Your task to perform on an android device: turn on sleep mode Image 0: 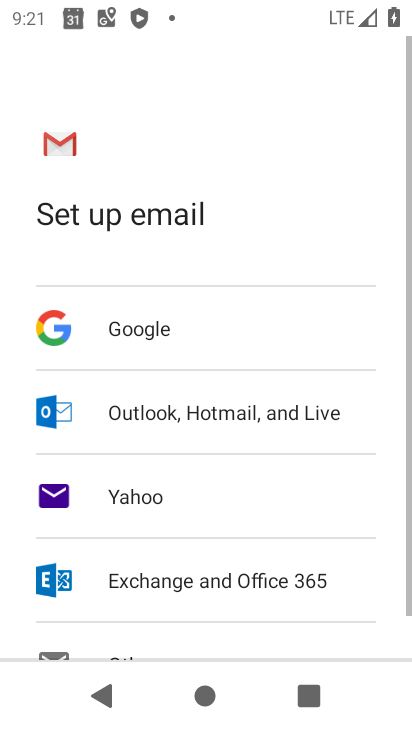
Step 0: press home button
Your task to perform on an android device: turn on sleep mode Image 1: 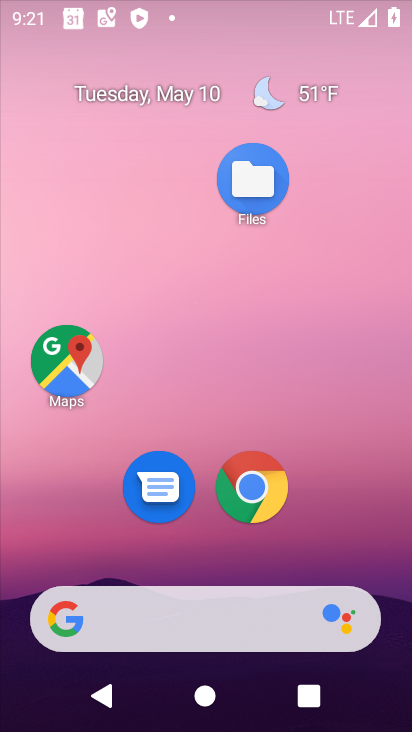
Step 1: drag from (217, 542) to (233, 132)
Your task to perform on an android device: turn on sleep mode Image 2: 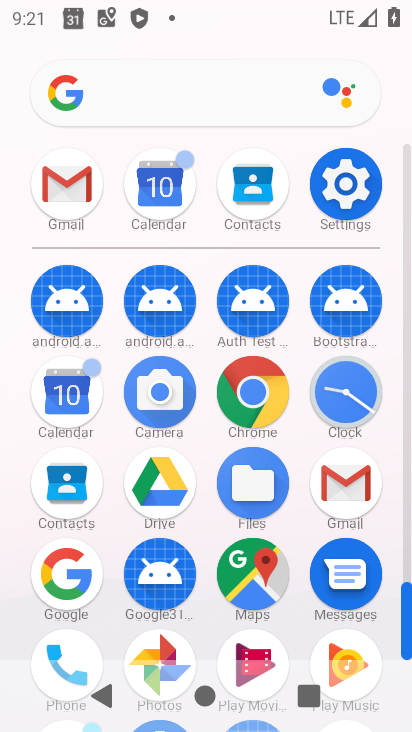
Step 2: click (339, 185)
Your task to perform on an android device: turn on sleep mode Image 3: 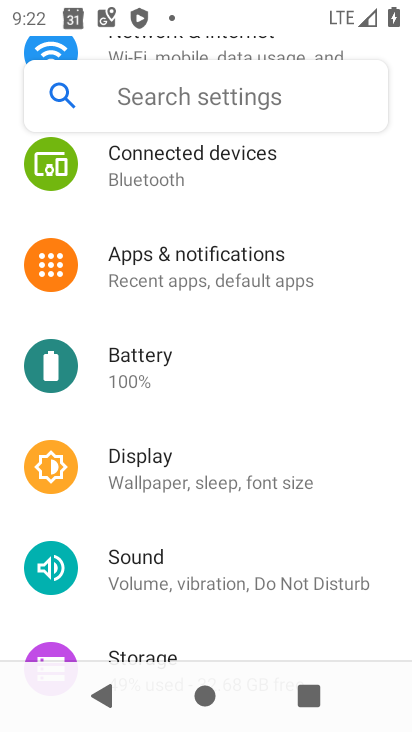
Step 3: click (153, 487)
Your task to perform on an android device: turn on sleep mode Image 4: 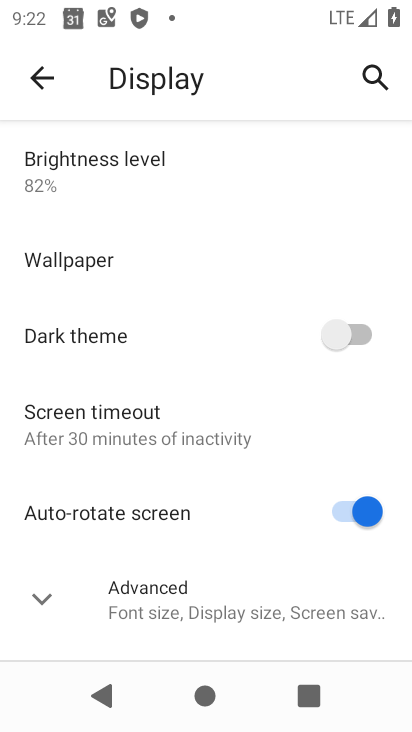
Step 4: click (135, 435)
Your task to perform on an android device: turn on sleep mode Image 5: 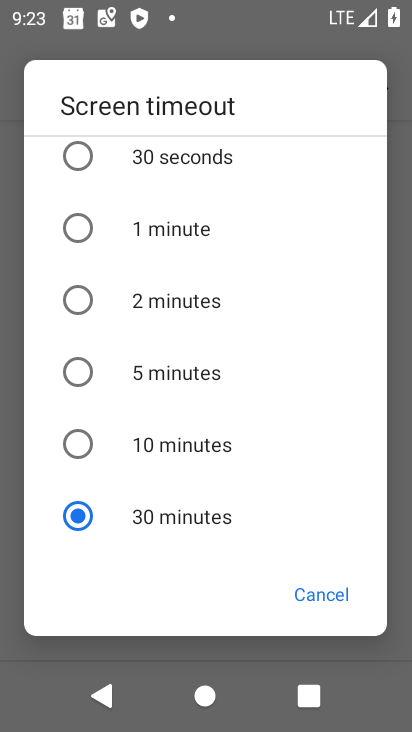
Step 5: task complete